Your task to perform on an android device: set the timer Image 0: 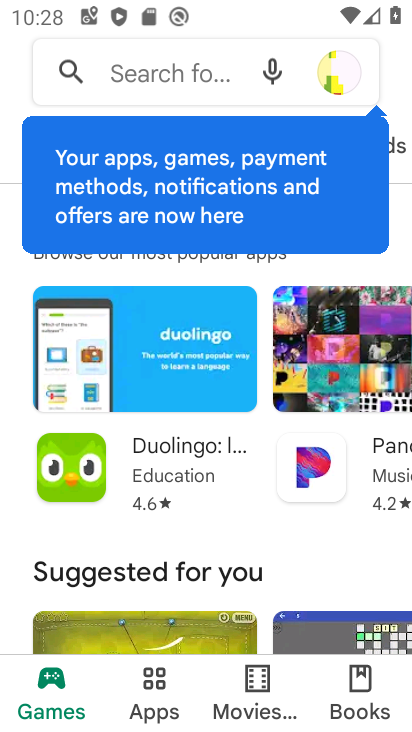
Step 0: press home button
Your task to perform on an android device: set the timer Image 1: 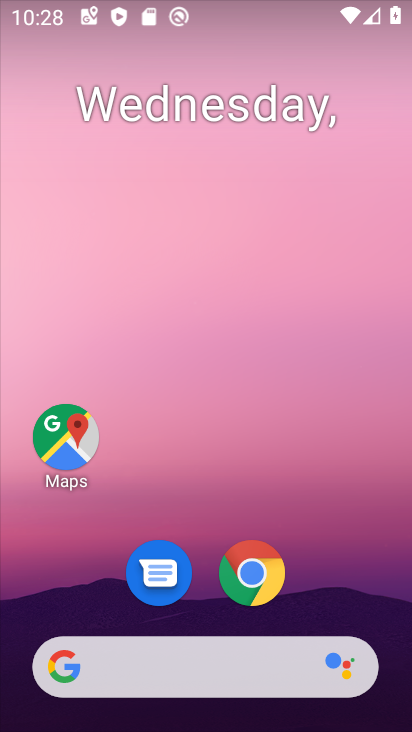
Step 1: drag from (192, 571) to (211, 4)
Your task to perform on an android device: set the timer Image 2: 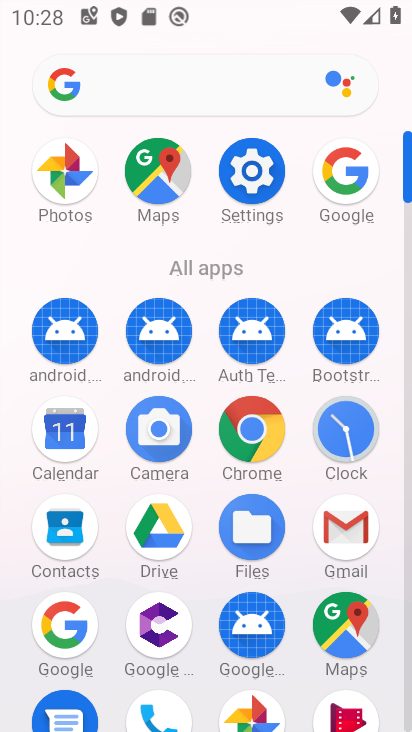
Step 2: click (346, 443)
Your task to perform on an android device: set the timer Image 3: 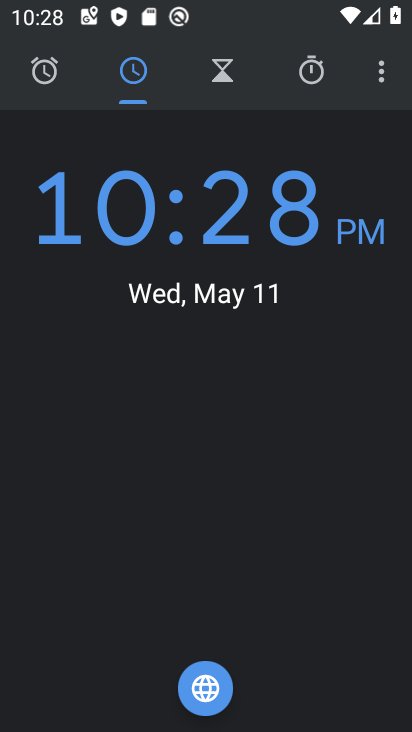
Step 3: click (234, 76)
Your task to perform on an android device: set the timer Image 4: 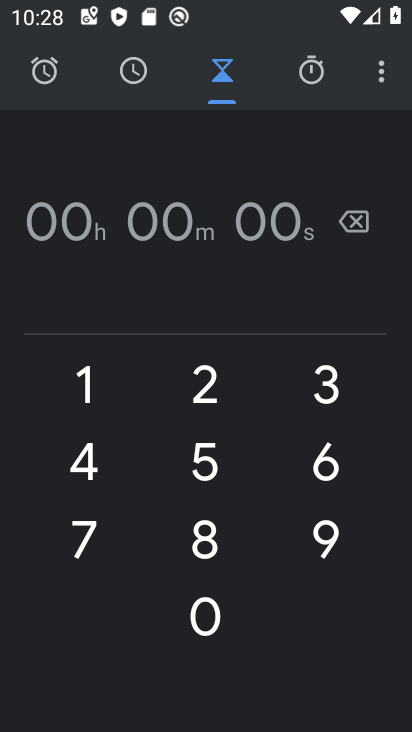
Step 4: click (210, 610)
Your task to perform on an android device: set the timer Image 5: 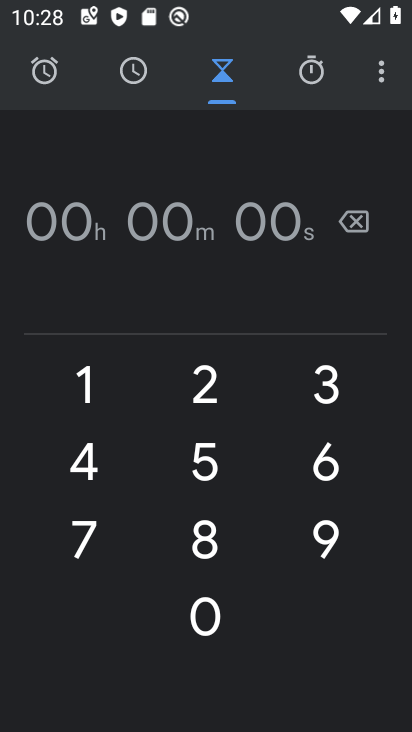
Step 5: click (204, 545)
Your task to perform on an android device: set the timer Image 6: 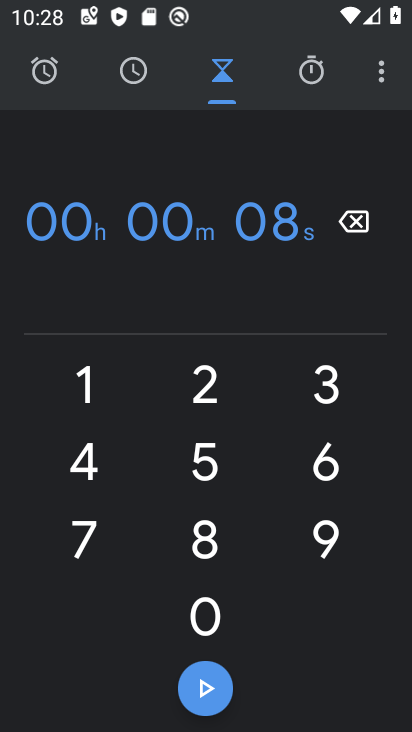
Step 6: click (208, 616)
Your task to perform on an android device: set the timer Image 7: 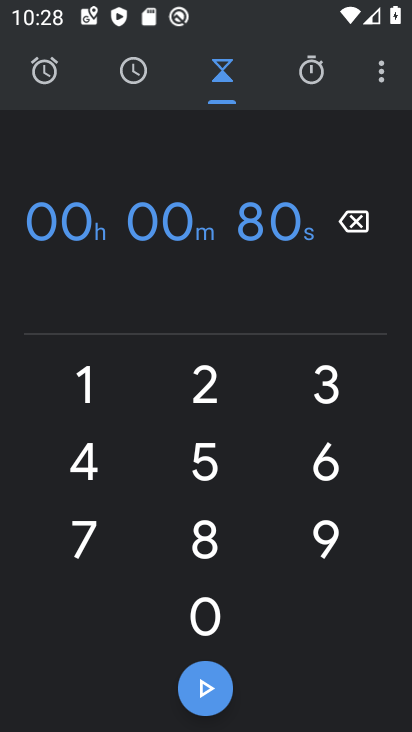
Step 7: click (208, 616)
Your task to perform on an android device: set the timer Image 8: 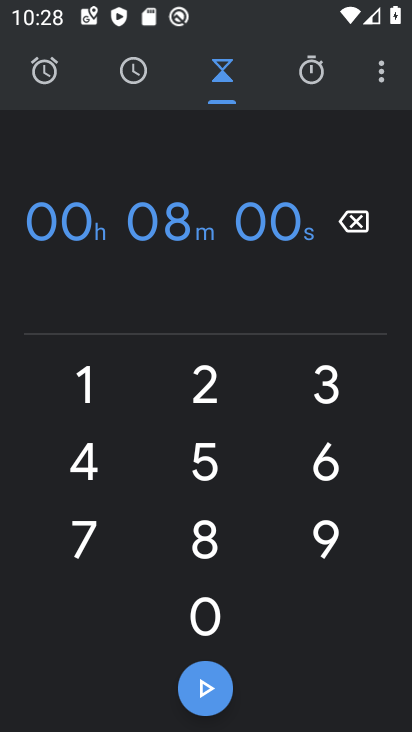
Step 8: click (201, 693)
Your task to perform on an android device: set the timer Image 9: 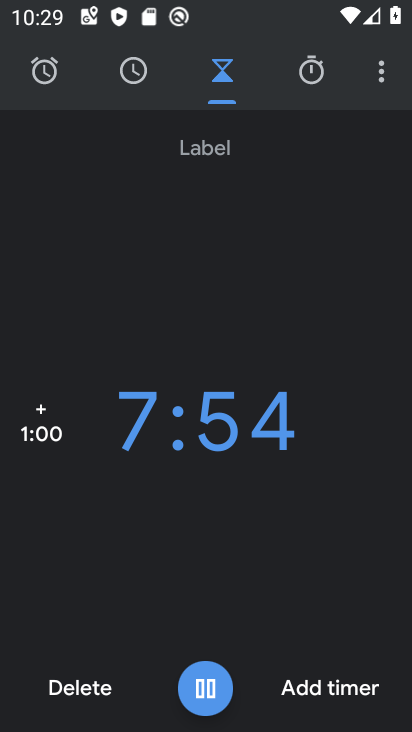
Step 9: task complete